Your task to perform on an android device: star an email in the gmail app Image 0: 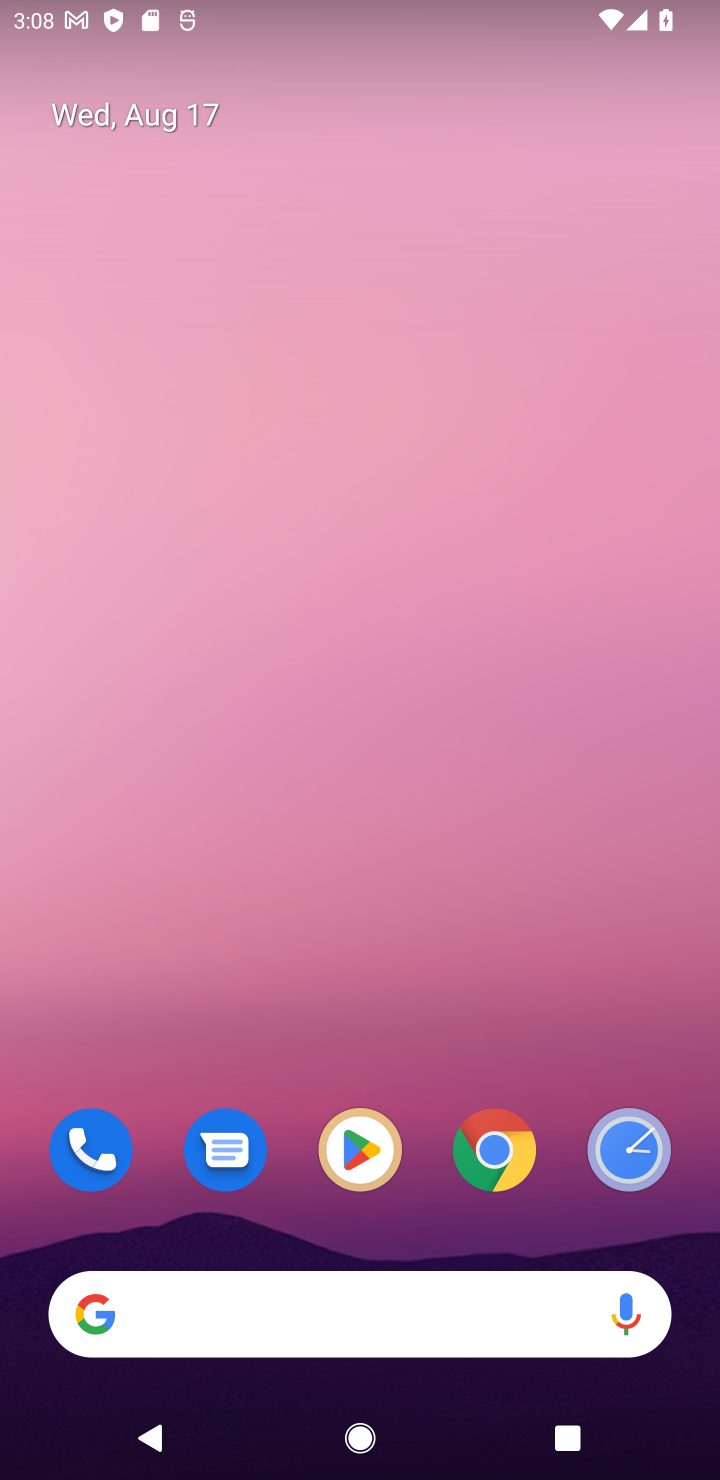
Step 0: drag from (671, 1060) to (339, 10)
Your task to perform on an android device: star an email in the gmail app Image 1: 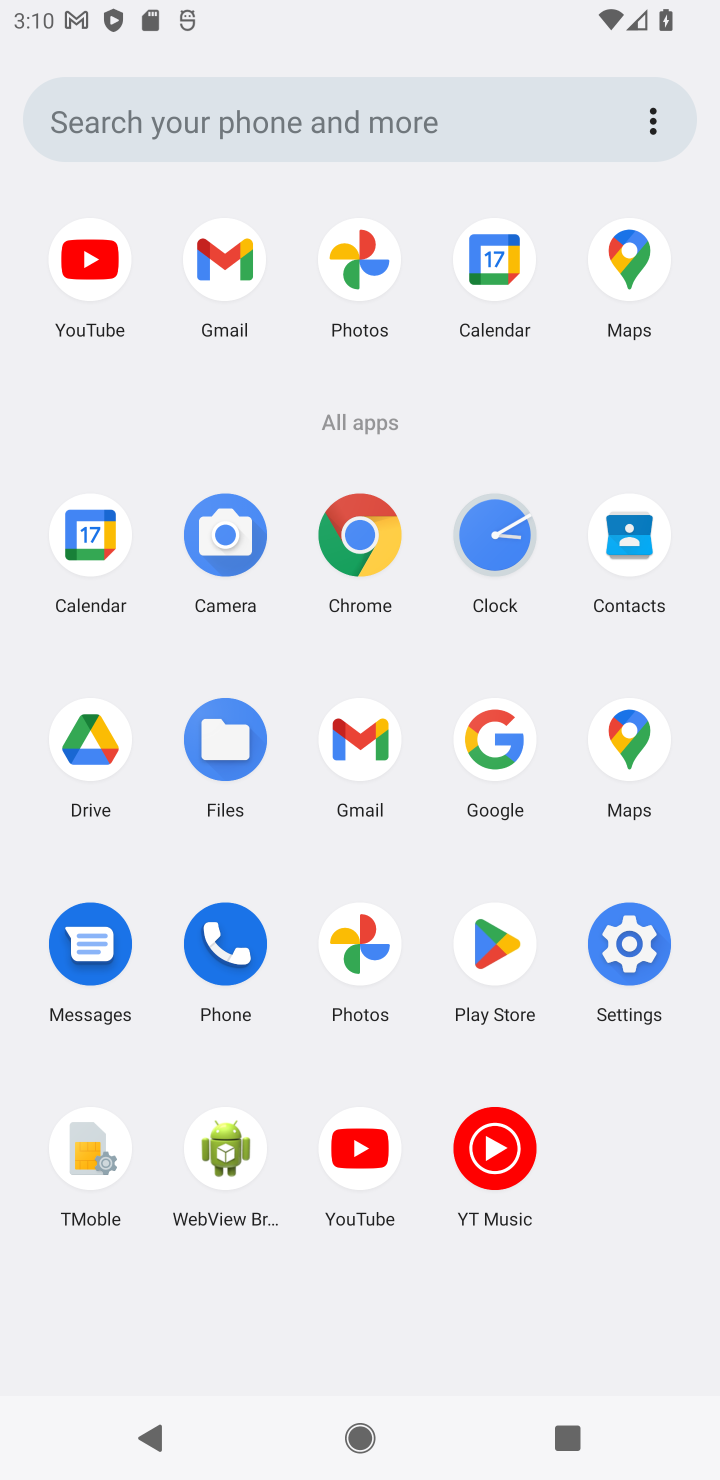
Step 1: click (336, 743)
Your task to perform on an android device: star an email in the gmail app Image 2: 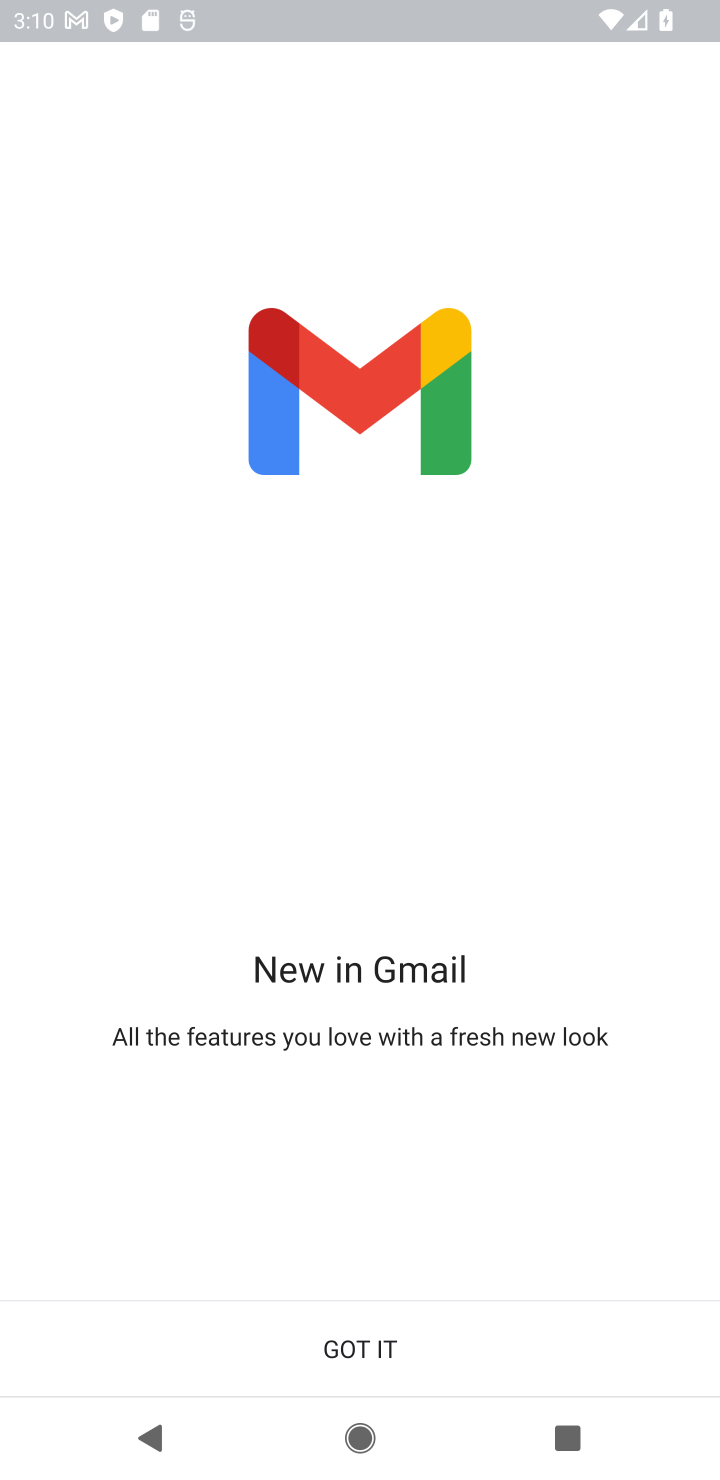
Step 2: click (373, 1337)
Your task to perform on an android device: star an email in the gmail app Image 3: 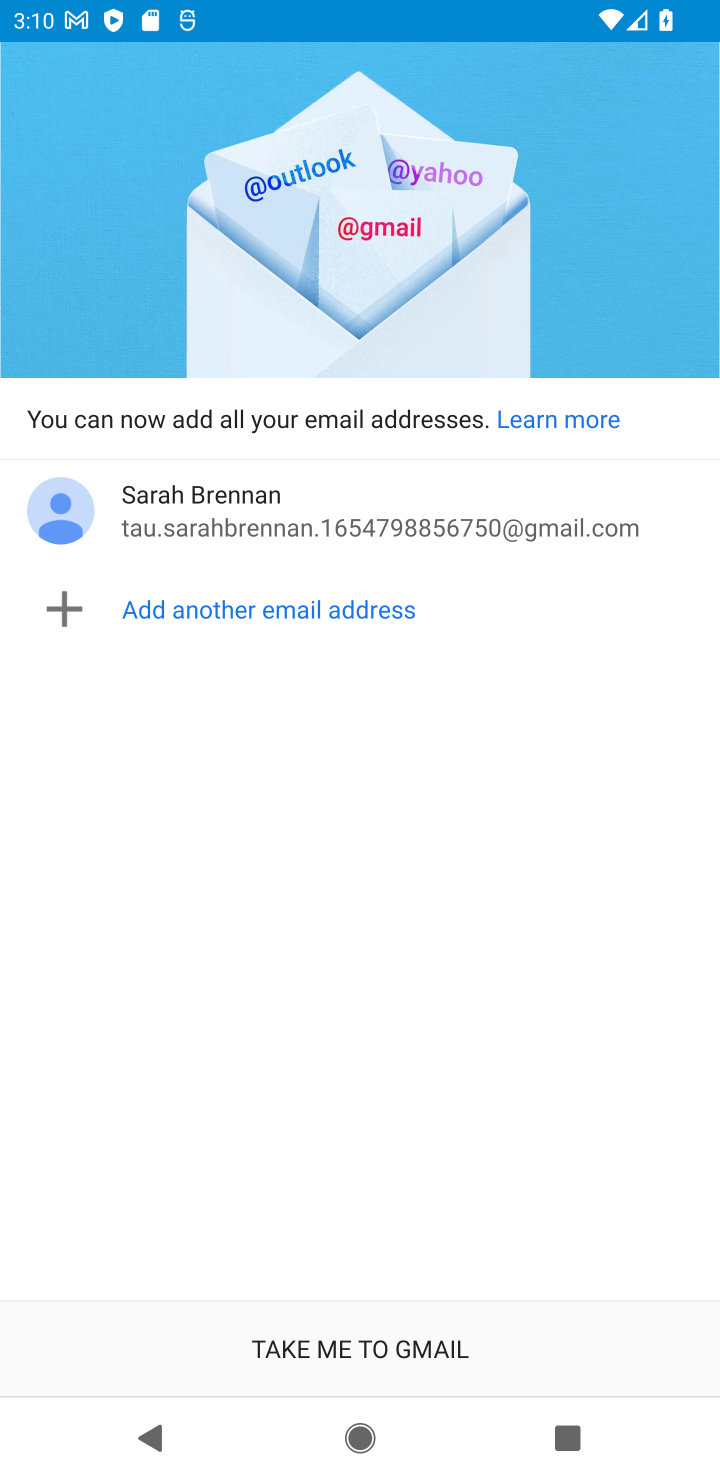
Step 3: click (373, 1337)
Your task to perform on an android device: star an email in the gmail app Image 4: 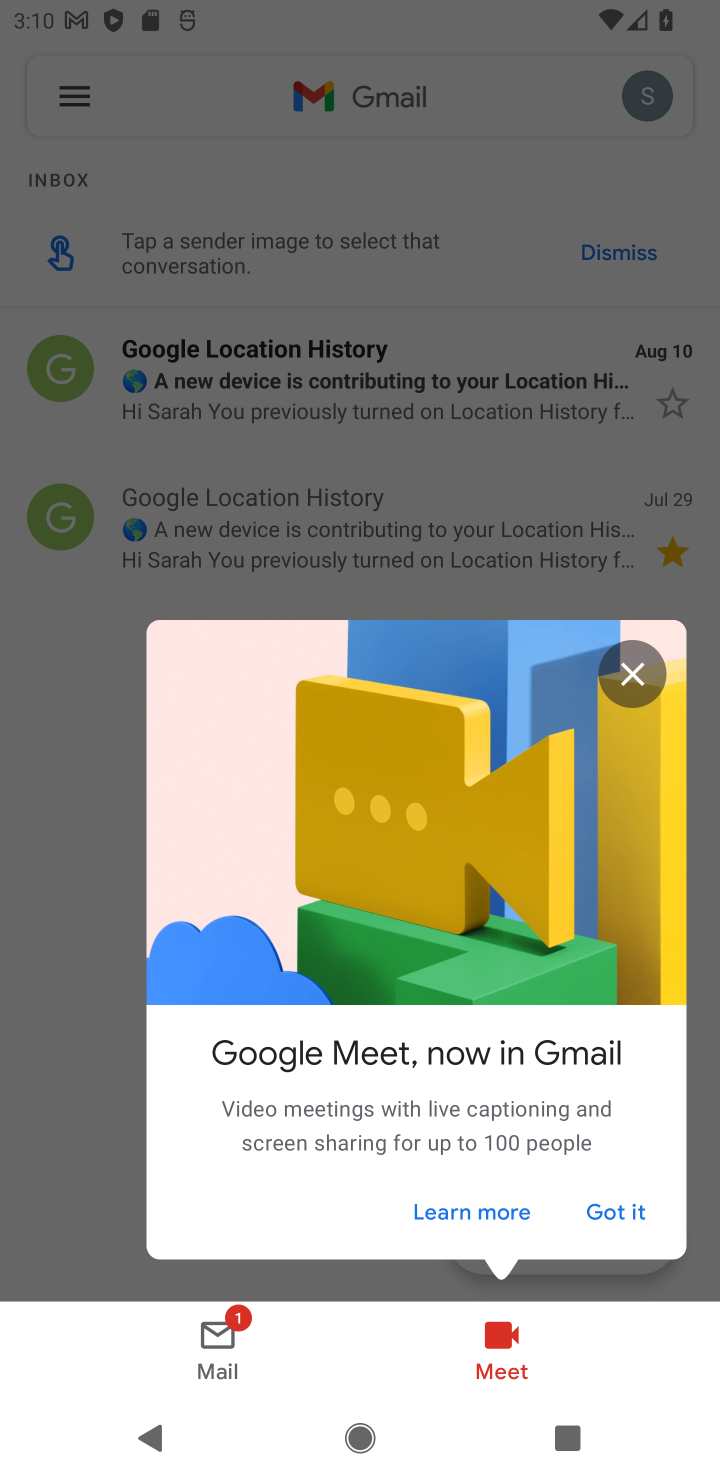
Step 4: click (623, 1208)
Your task to perform on an android device: star an email in the gmail app Image 5: 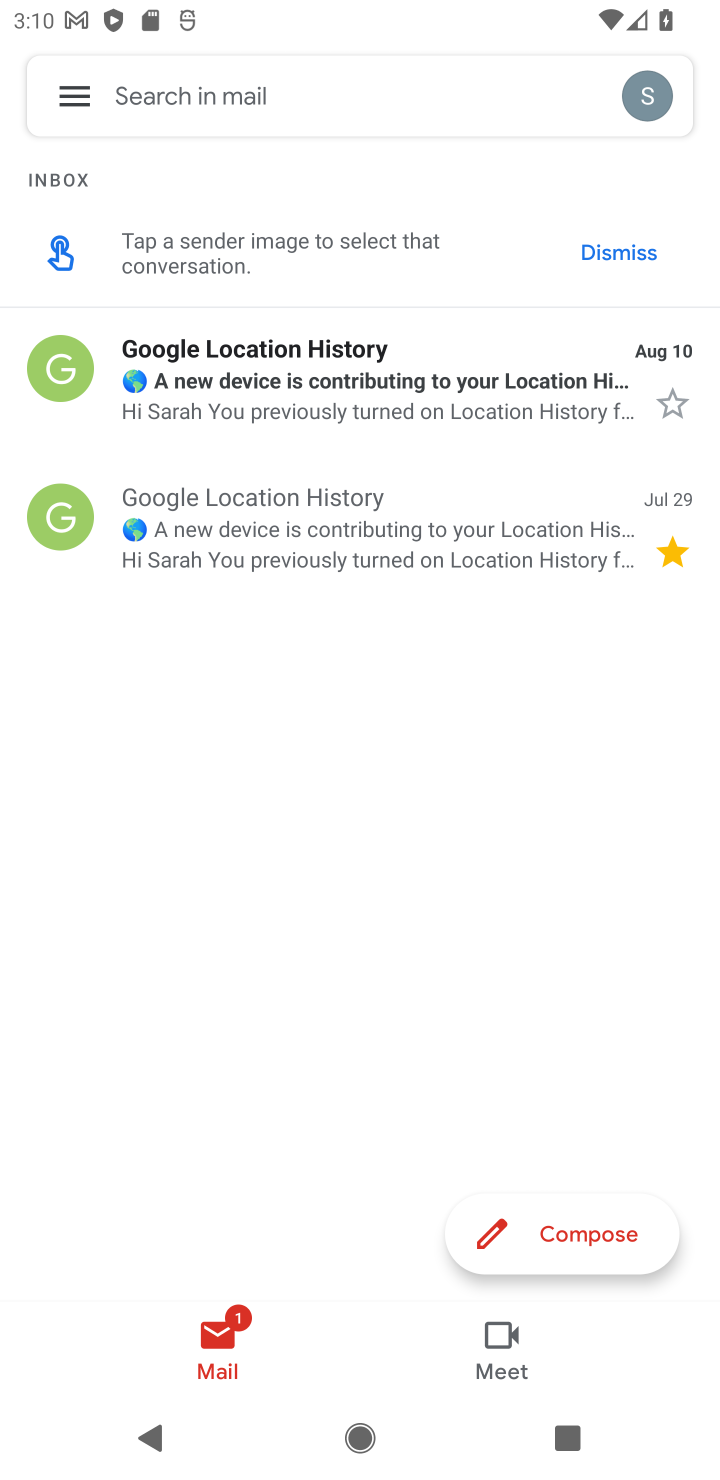
Step 5: click (670, 395)
Your task to perform on an android device: star an email in the gmail app Image 6: 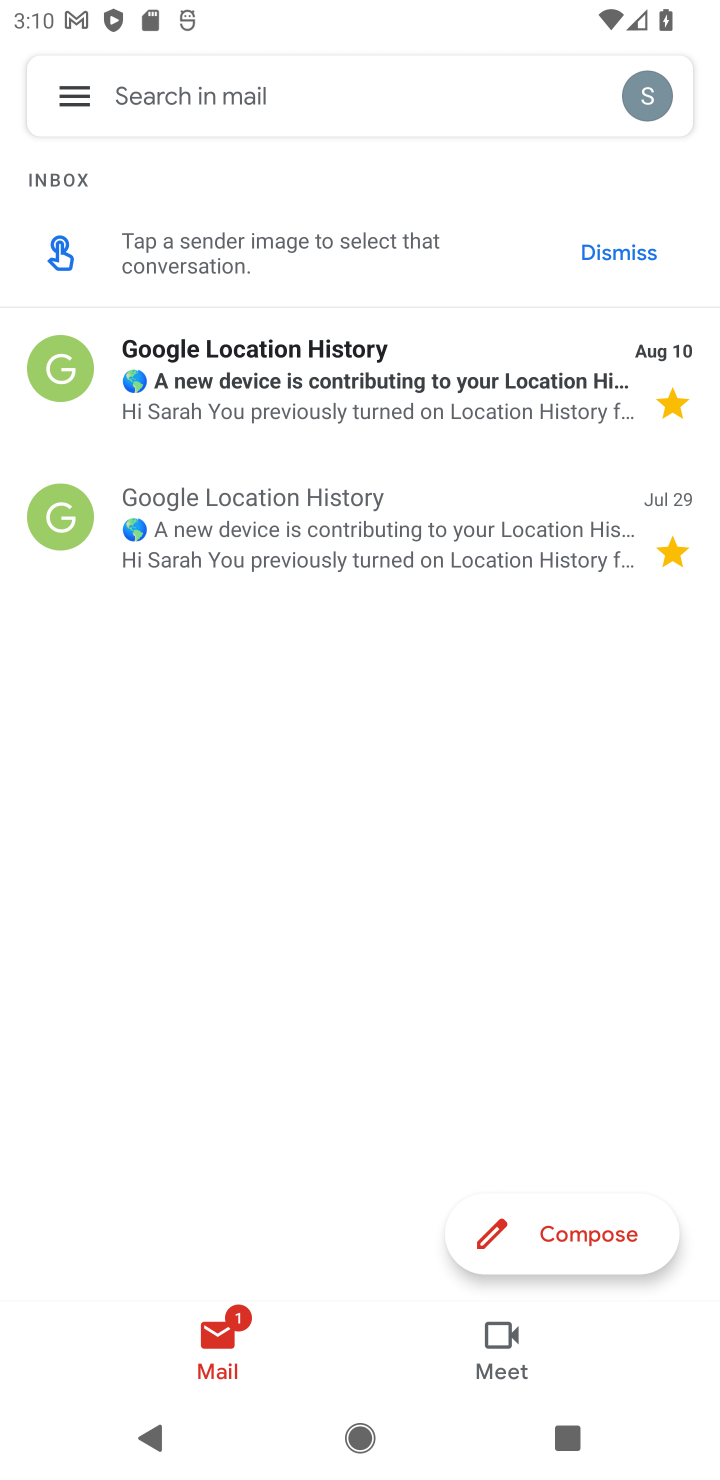
Step 6: task complete